Your task to perform on an android device: Go to wifi settings Image 0: 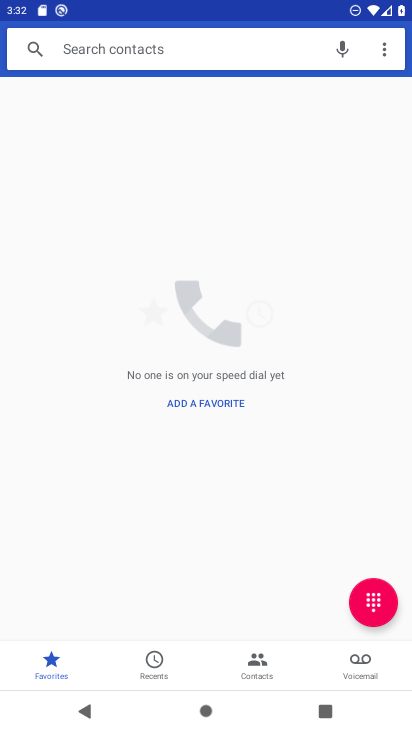
Step 0: press home button
Your task to perform on an android device: Go to wifi settings Image 1: 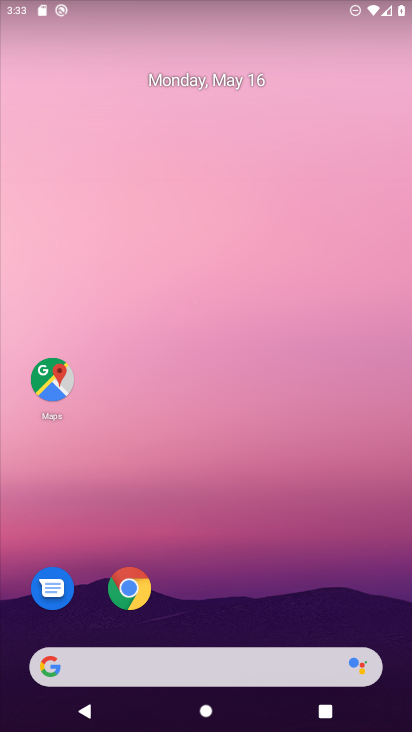
Step 1: drag from (271, 626) to (265, 5)
Your task to perform on an android device: Go to wifi settings Image 2: 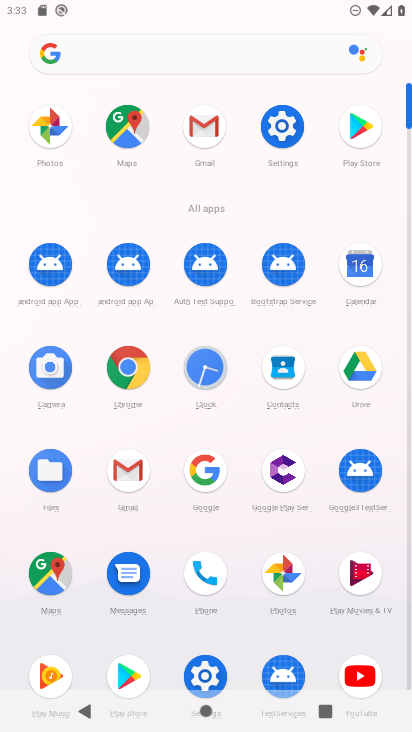
Step 2: click (282, 135)
Your task to perform on an android device: Go to wifi settings Image 3: 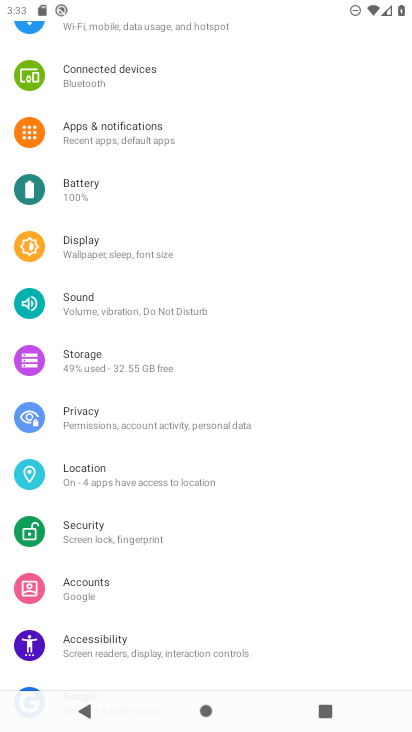
Step 3: drag from (240, 90) to (241, 293)
Your task to perform on an android device: Go to wifi settings Image 4: 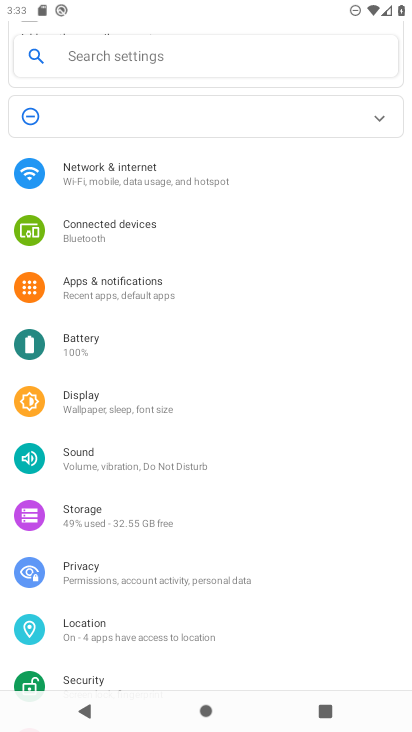
Step 4: click (112, 170)
Your task to perform on an android device: Go to wifi settings Image 5: 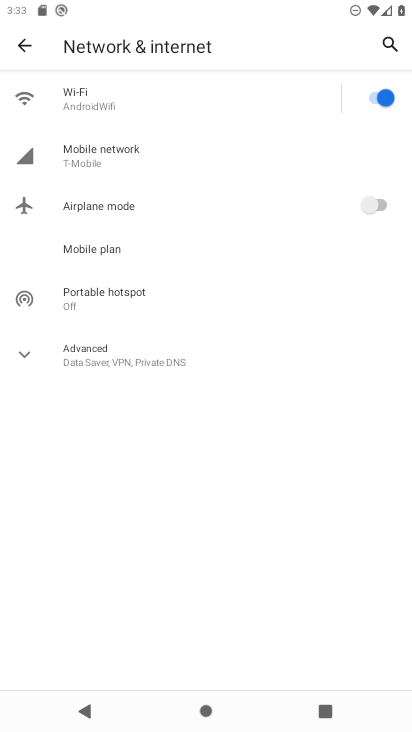
Step 5: click (82, 101)
Your task to perform on an android device: Go to wifi settings Image 6: 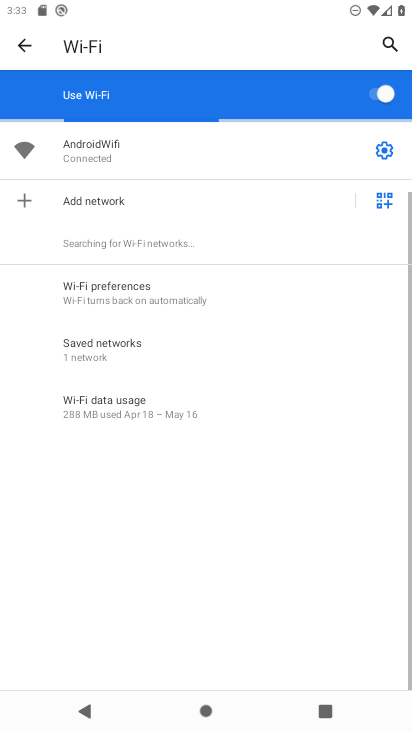
Step 6: task complete